Your task to perform on an android device: set default search engine in the chrome app Image 0: 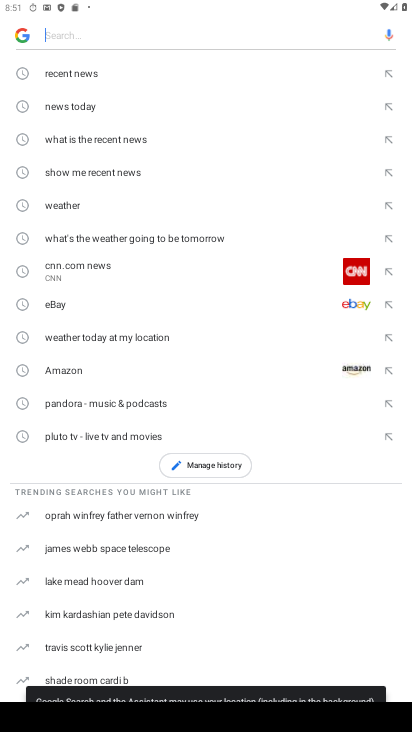
Step 0: press back button
Your task to perform on an android device: set default search engine in the chrome app Image 1: 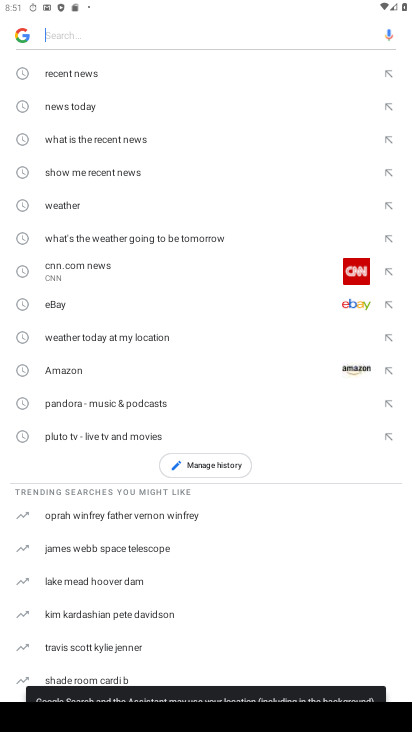
Step 1: press back button
Your task to perform on an android device: set default search engine in the chrome app Image 2: 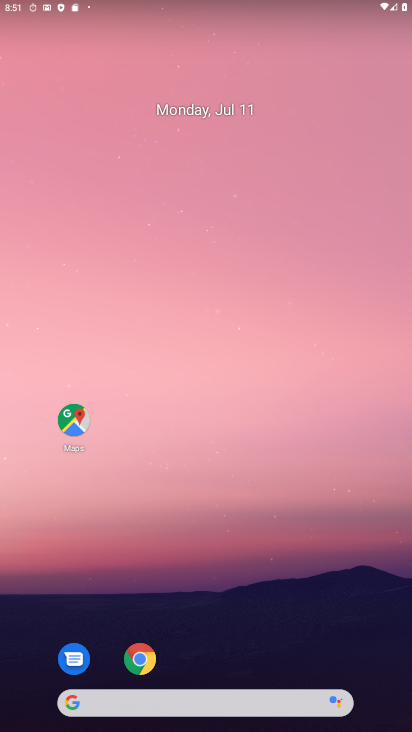
Step 2: drag from (224, 604) to (253, 196)
Your task to perform on an android device: set default search engine in the chrome app Image 3: 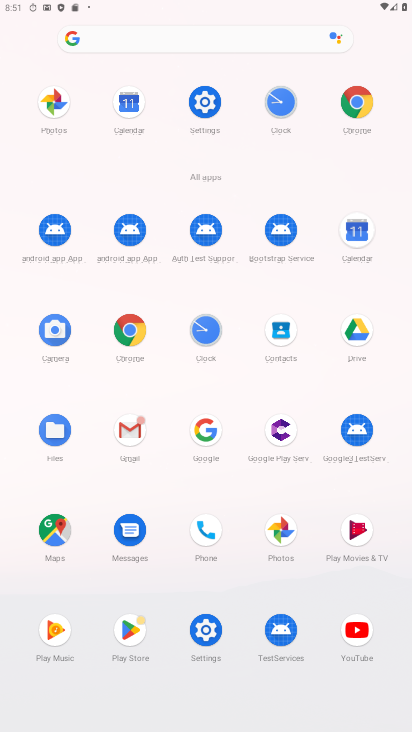
Step 3: click (134, 343)
Your task to perform on an android device: set default search engine in the chrome app Image 4: 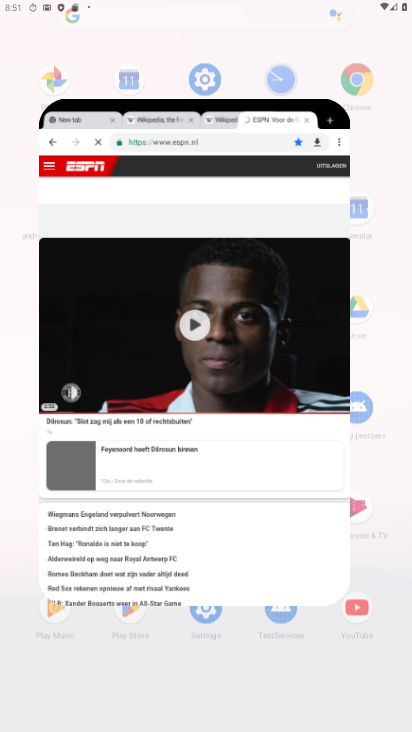
Step 4: click (134, 343)
Your task to perform on an android device: set default search engine in the chrome app Image 5: 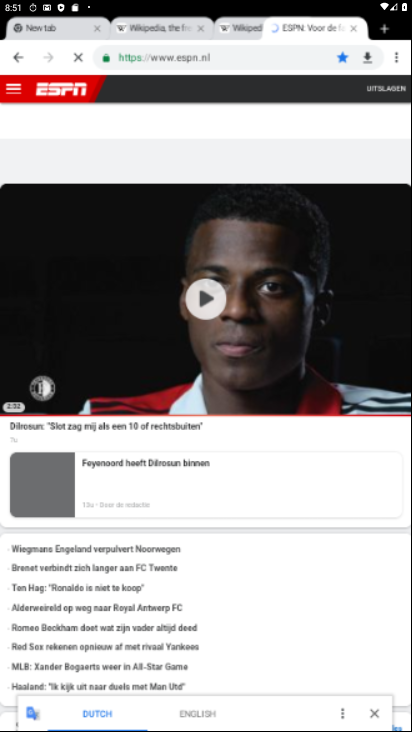
Step 5: click (136, 342)
Your task to perform on an android device: set default search engine in the chrome app Image 6: 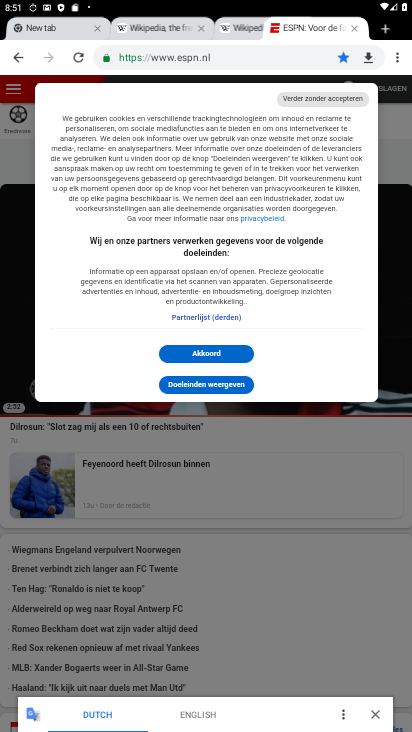
Step 6: click (402, 64)
Your task to perform on an android device: set default search engine in the chrome app Image 7: 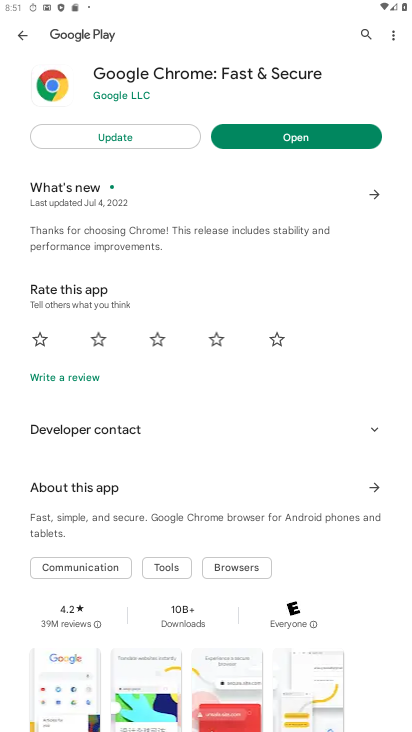
Step 7: click (19, 30)
Your task to perform on an android device: set default search engine in the chrome app Image 8: 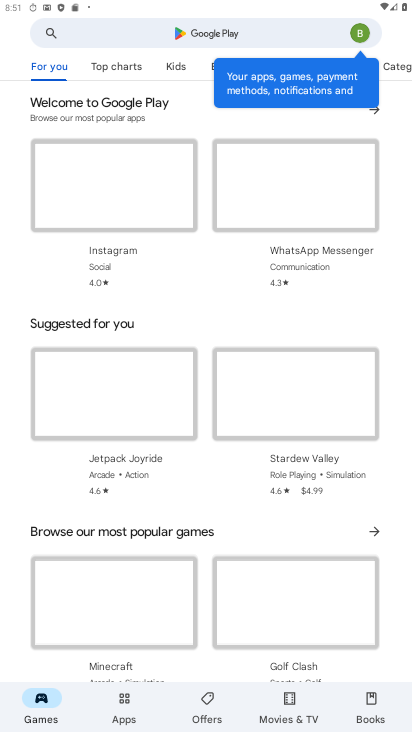
Step 8: press back button
Your task to perform on an android device: set default search engine in the chrome app Image 9: 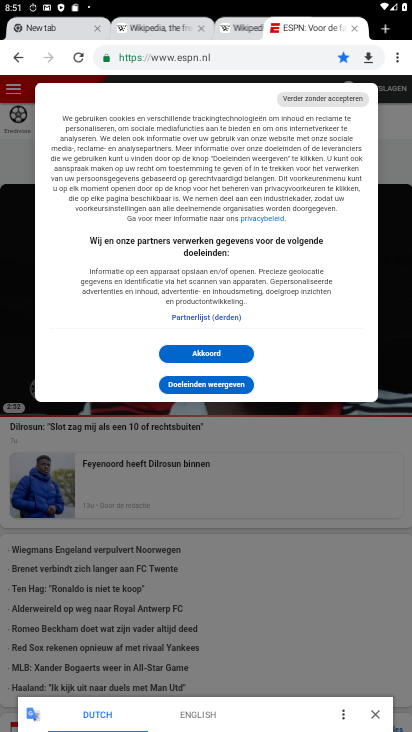
Step 9: drag from (391, 58) to (275, 405)
Your task to perform on an android device: set default search engine in the chrome app Image 10: 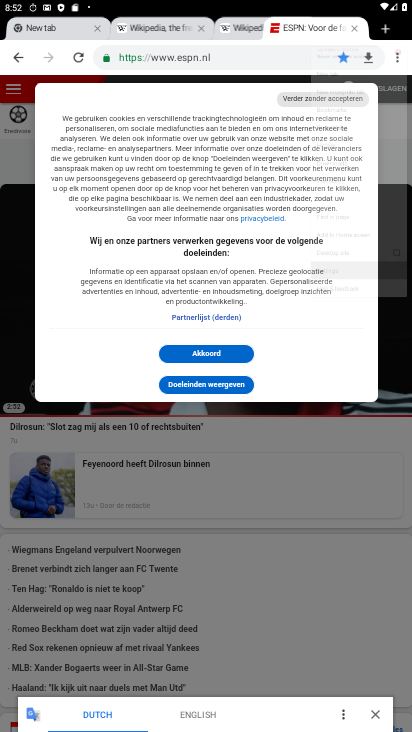
Step 10: click (269, 395)
Your task to perform on an android device: set default search engine in the chrome app Image 11: 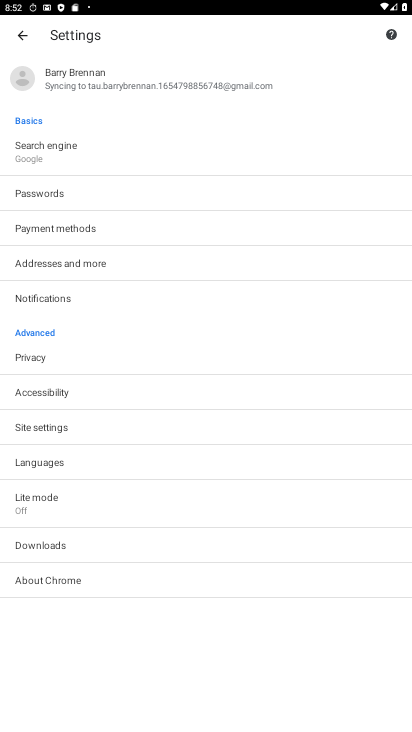
Step 11: click (41, 140)
Your task to perform on an android device: set default search engine in the chrome app Image 12: 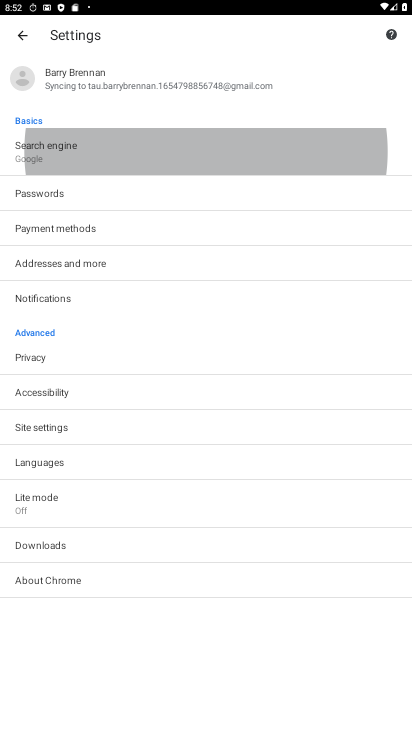
Step 12: click (41, 140)
Your task to perform on an android device: set default search engine in the chrome app Image 13: 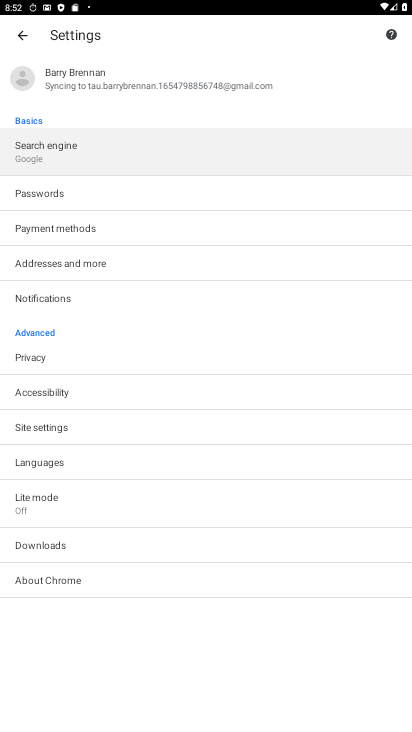
Step 13: click (40, 140)
Your task to perform on an android device: set default search engine in the chrome app Image 14: 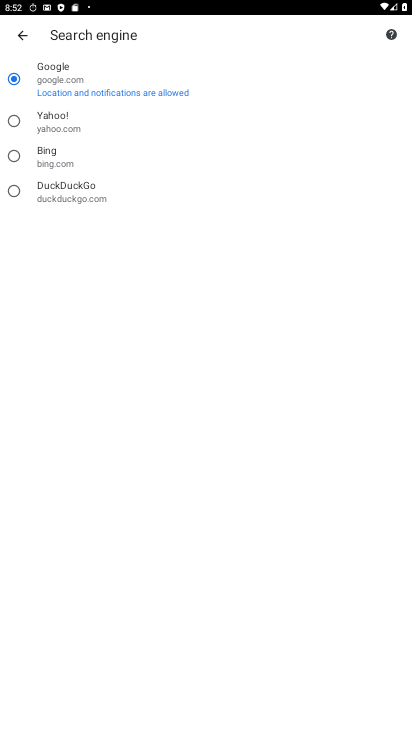
Step 14: click (12, 119)
Your task to perform on an android device: set default search engine in the chrome app Image 15: 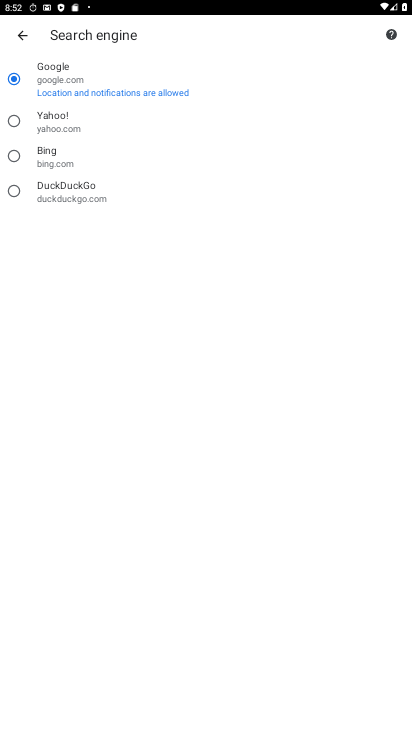
Step 15: click (13, 120)
Your task to perform on an android device: set default search engine in the chrome app Image 16: 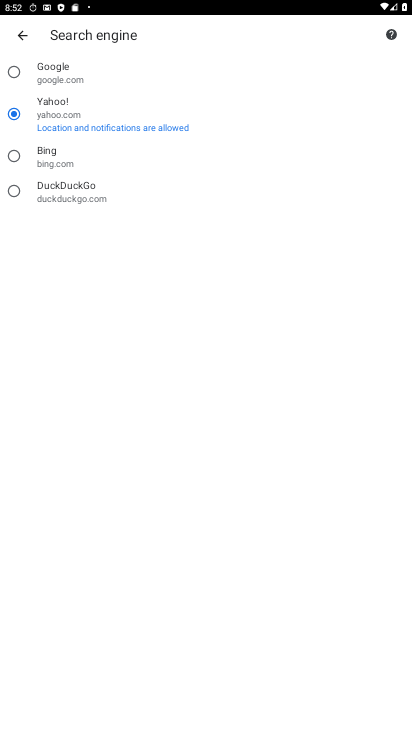
Step 16: task complete